Your task to perform on an android device: turn on translation in the chrome app Image 0: 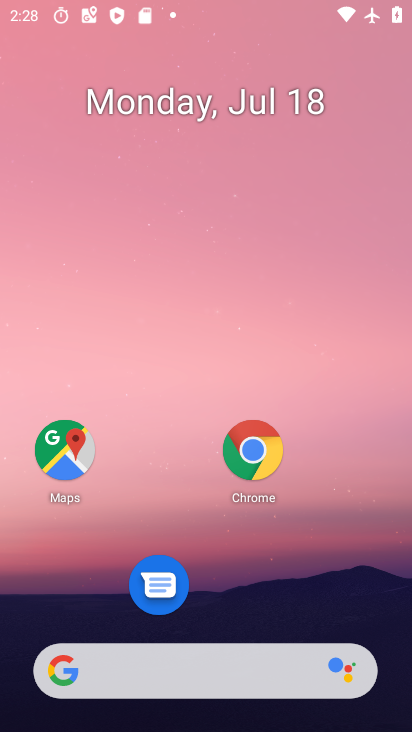
Step 0: press home button
Your task to perform on an android device: turn on translation in the chrome app Image 1: 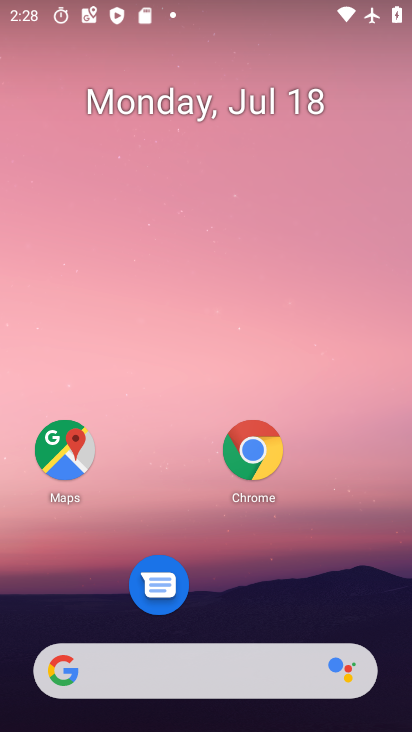
Step 1: click (239, 449)
Your task to perform on an android device: turn on translation in the chrome app Image 2: 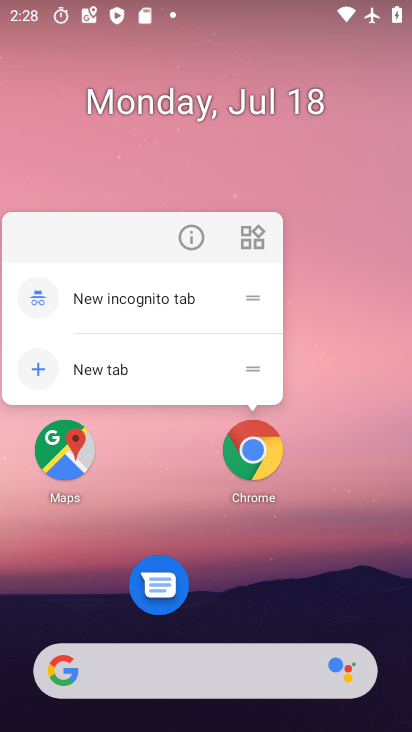
Step 2: click (249, 462)
Your task to perform on an android device: turn on translation in the chrome app Image 3: 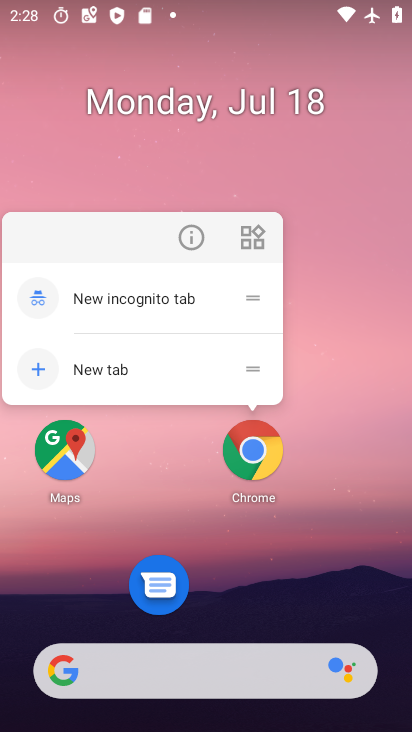
Step 3: click (254, 449)
Your task to perform on an android device: turn on translation in the chrome app Image 4: 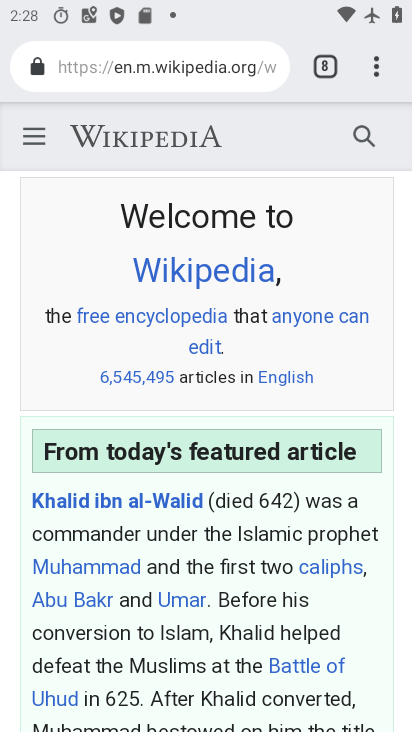
Step 4: drag from (374, 68) to (226, 588)
Your task to perform on an android device: turn on translation in the chrome app Image 5: 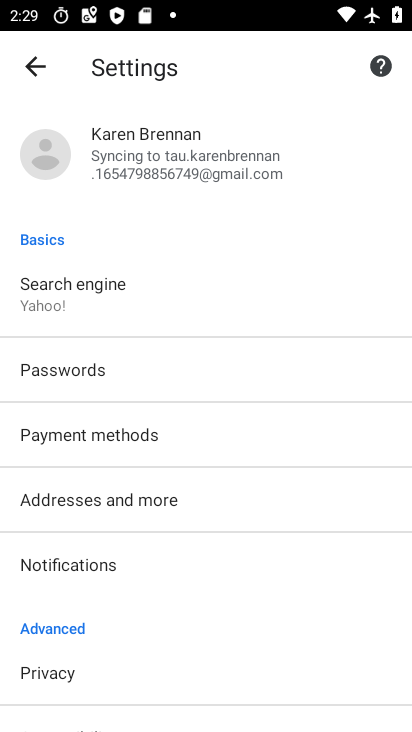
Step 5: drag from (150, 626) to (272, 228)
Your task to perform on an android device: turn on translation in the chrome app Image 6: 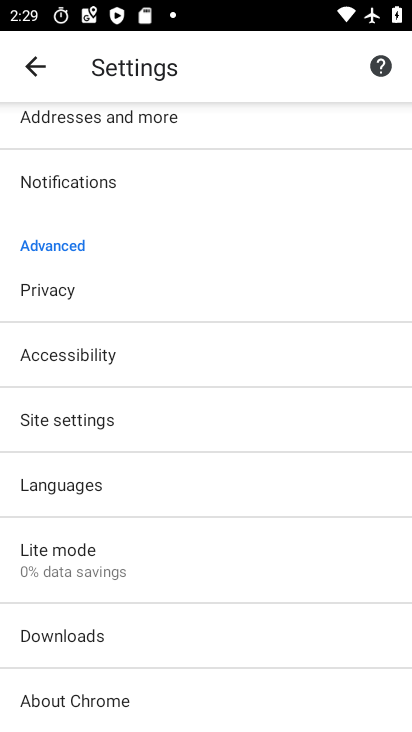
Step 6: click (71, 483)
Your task to perform on an android device: turn on translation in the chrome app Image 7: 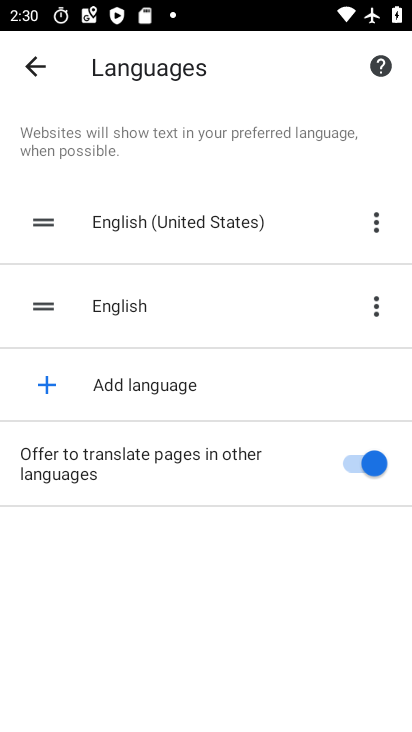
Step 7: task complete